Your task to perform on an android device: change the clock display to digital Image 0: 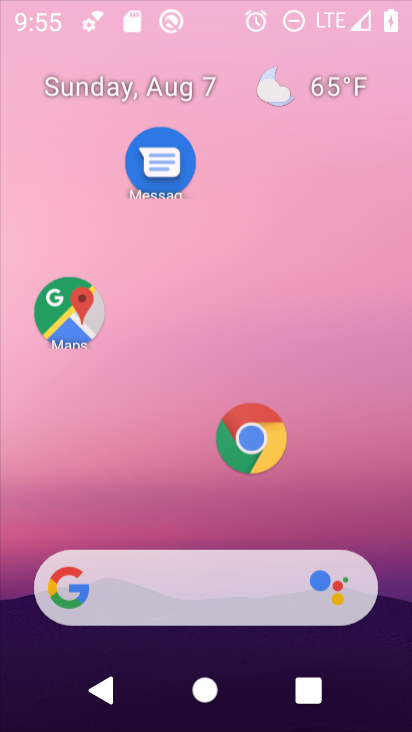
Step 0: press home button
Your task to perform on an android device: change the clock display to digital Image 1: 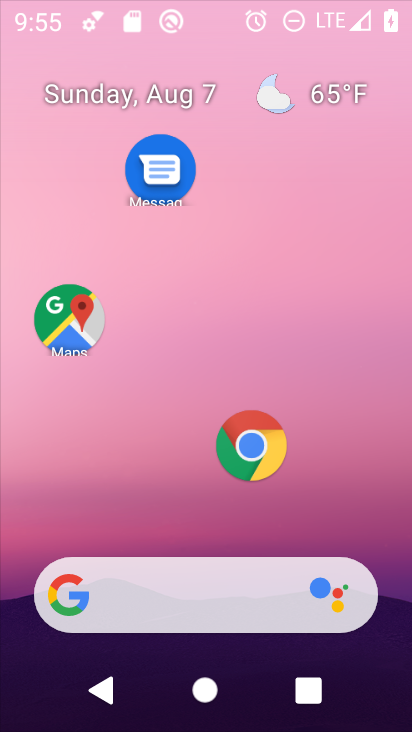
Step 1: click (333, 88)
Your task to perform on an android device: change the clock display to digital Image 2: 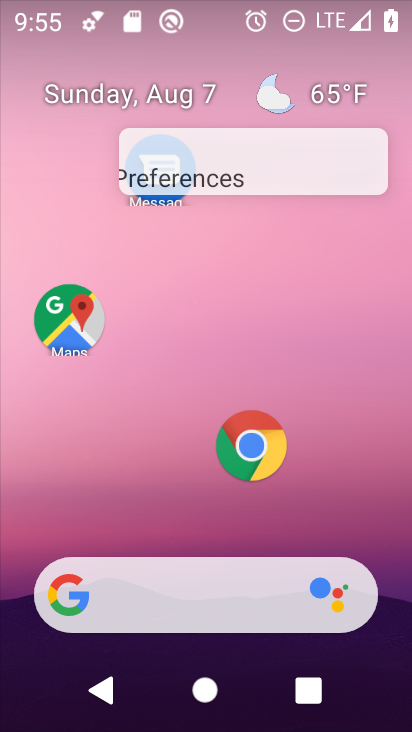
Step 2: click (333, 88)
Your task to perform on an android device: change the clock display to digital Image 3: 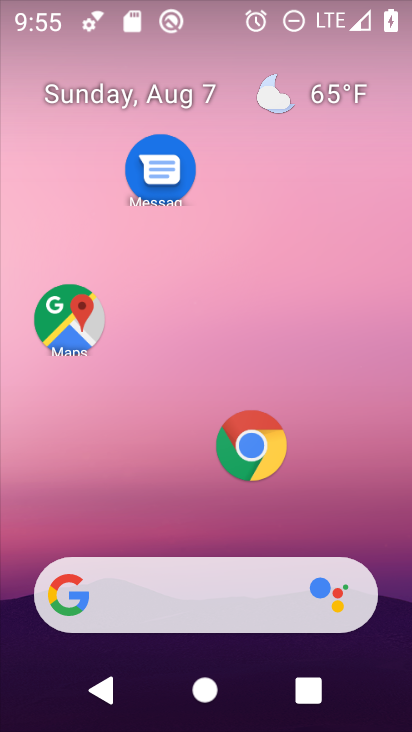
Step 3: drag from (329, 405) to (364, 67)
Your task to perform on an android device: change the clock display to digital Image 4: 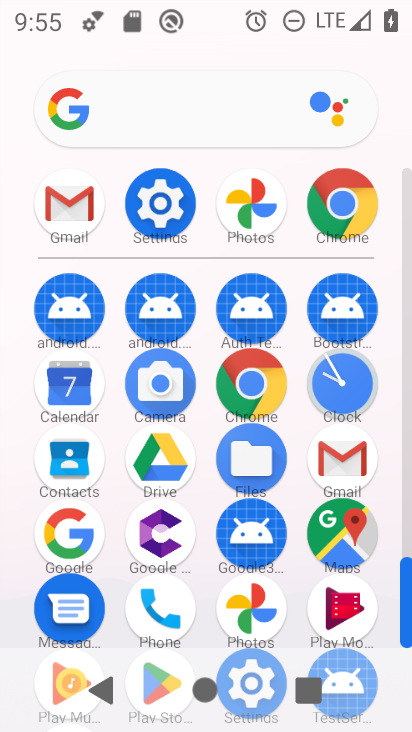
Step 4: click (336, 375)
Your task to perform on an android device: change the clock display to digital Image 5: 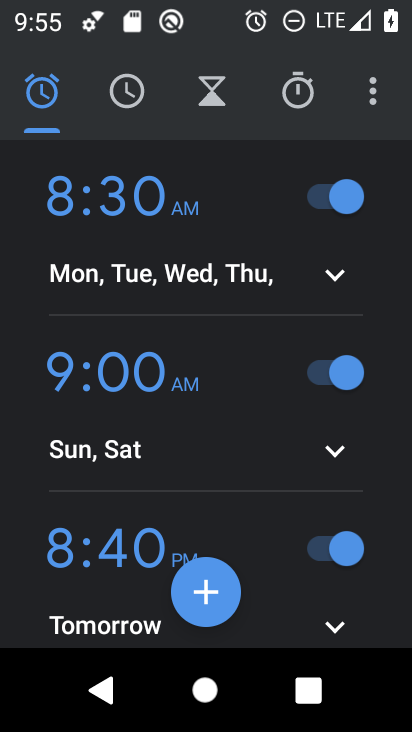
Step 5: click (373, 92)
Your task to perform on an android device: change the clock display to digital Image 6: 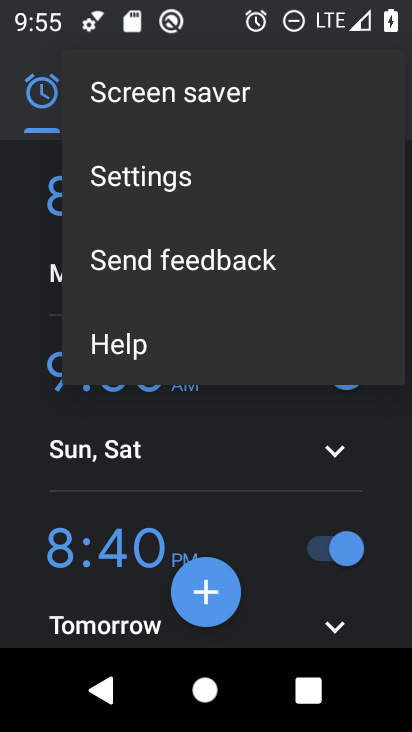
Step 6: click (210, 178)
Your task to perform on an android device: change the clock display to digital Image 7: 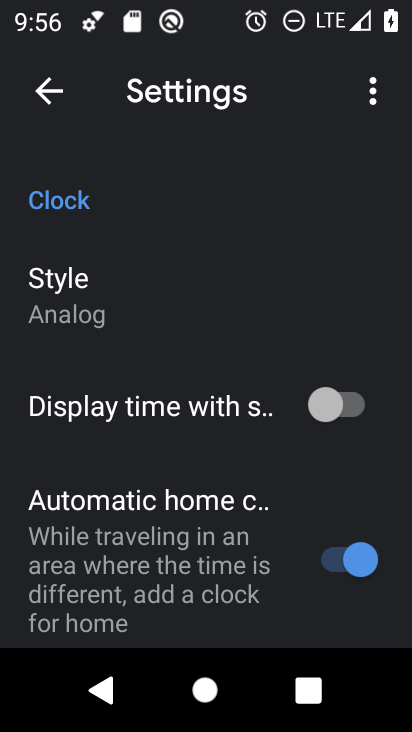
Step 7: click (118, 291)
Your task to perform on an android device: change the clock display to digital Image 8: 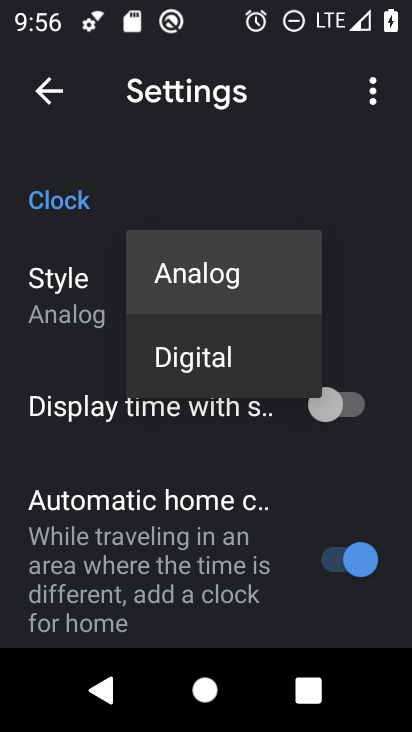
Step 8: click (240, 350)
Your task to perform on an android device: change the clock display to digital Image 9: 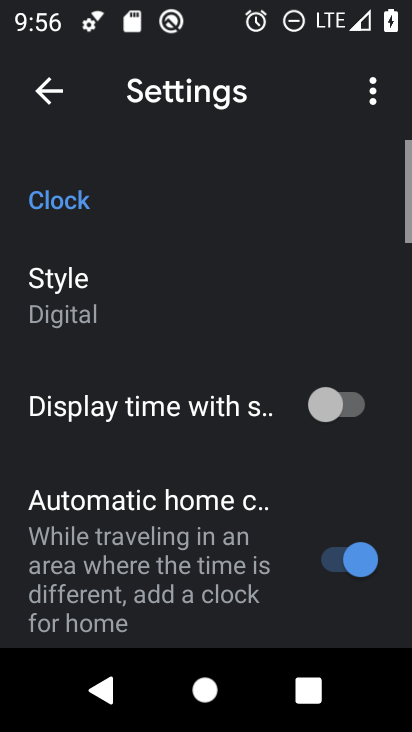
Step 9: task complete